Your task to perform on an android device: turn pop-ups on in chrome Image 0: 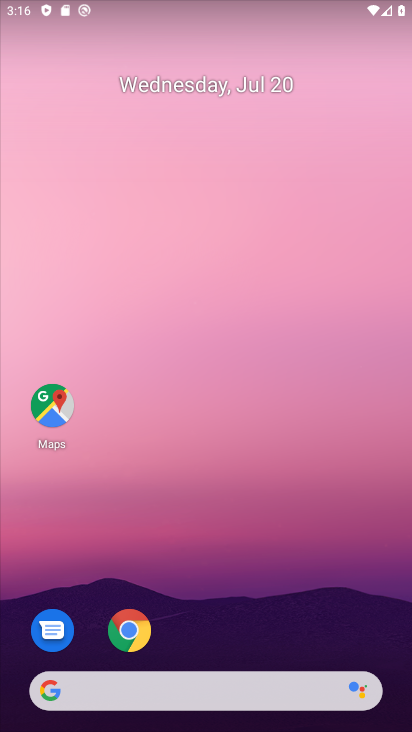
Step 0: press home button
Your task to perform on an android device: turn pop-ups on in chrome Image 1: 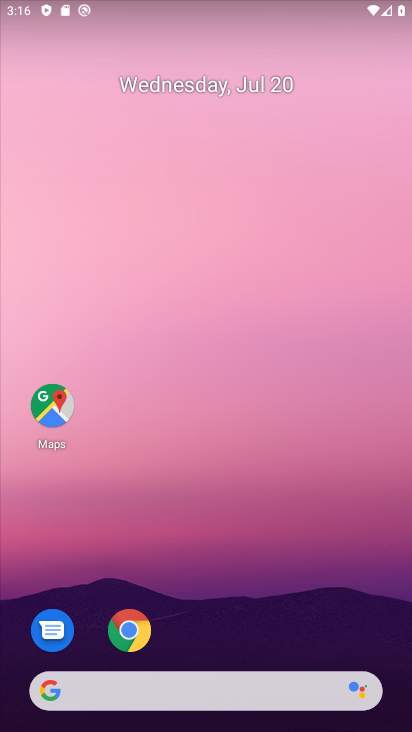
Step 1: drag from (276, 630) to (2, 60)
Your task to perform on an android device: turn pop-ups on in chrome Image 2: 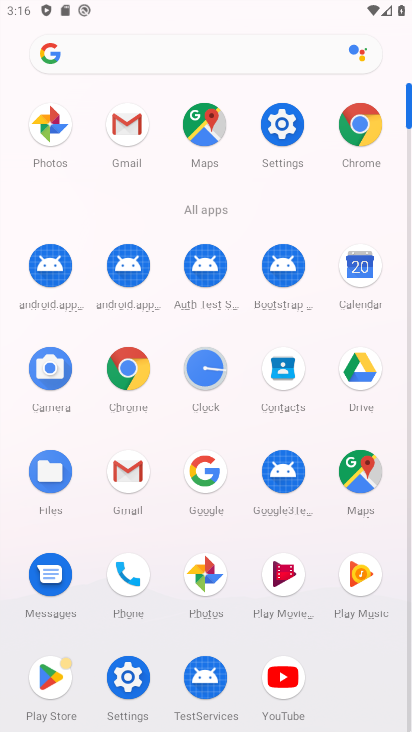
Step 2: click (366, 123)
Your task to perform on an android device: turn pop-ups on in chrome Image 3: 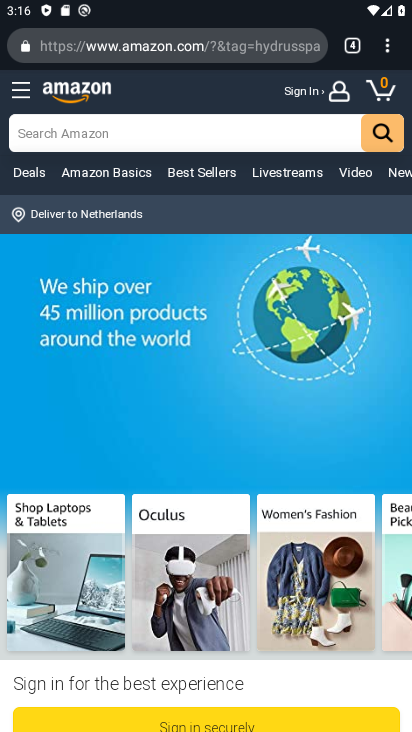
Step 3: drag from (387, 40) to (239, 552)
Your task to perform on an android device: turn pop-ups on in chrome Image 4: 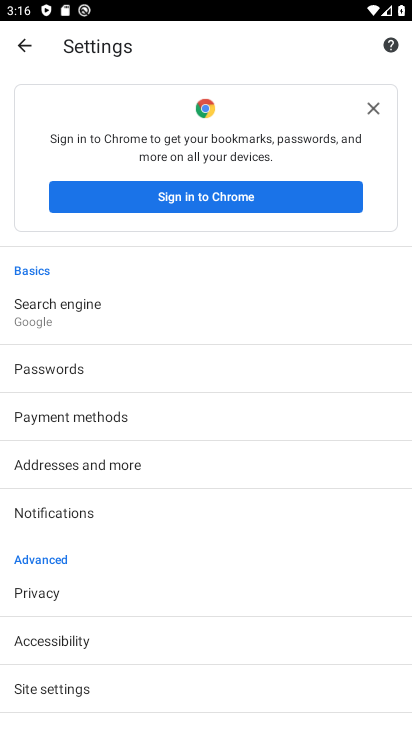
Step 4: click (53, 688)
Your task to perform on an android device: turn pop-ups on in chrome Image 5: 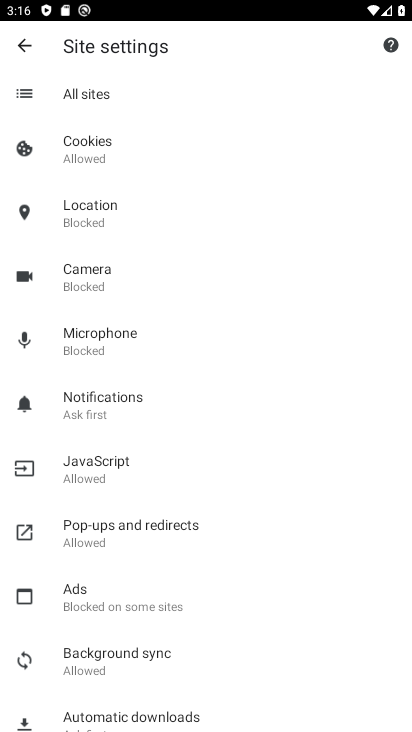
Step 5: click (100, 540)
Your task to perform on an android device: turn pop-ups on in chrome Image 6: 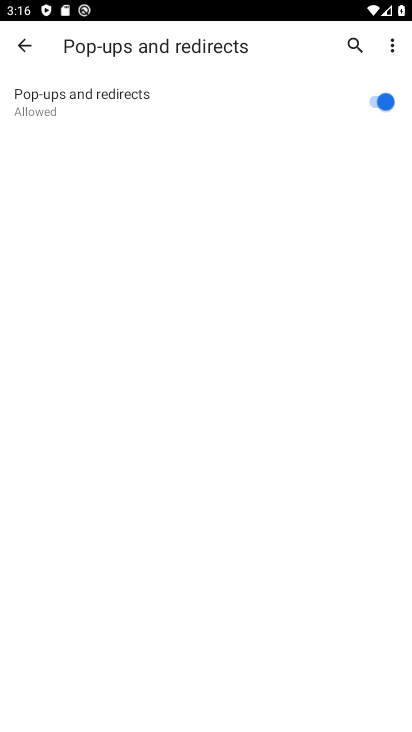
Step 6: task complete